Your task to perform on an android device: set an alarm Image 0: 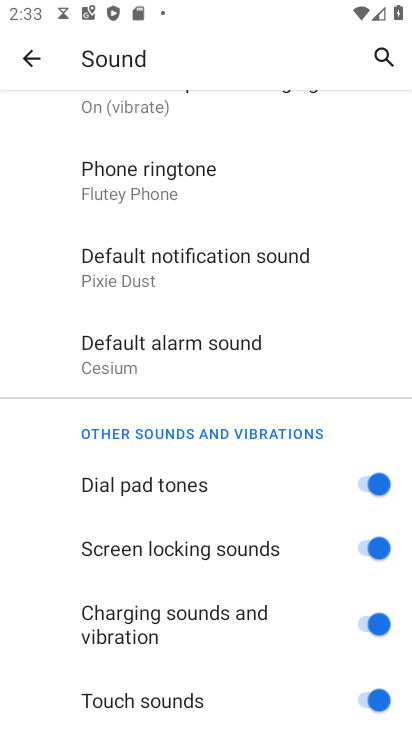
Step 0: press back button
Your task to perform on an android device: set an alarm Image 1: 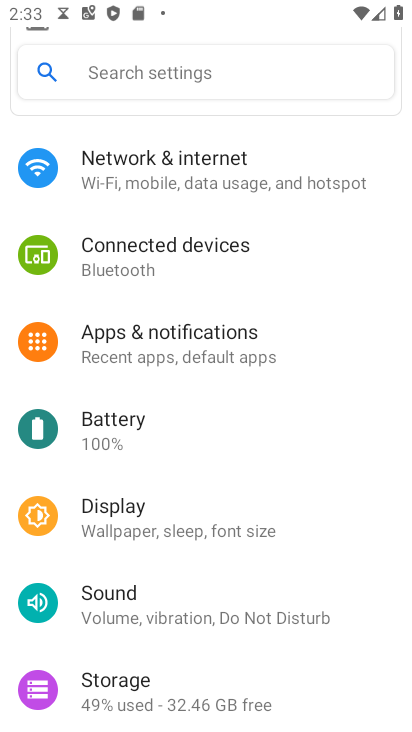
Step 1: press back button
Your task to perform on an android device: set an alarm Image 2: 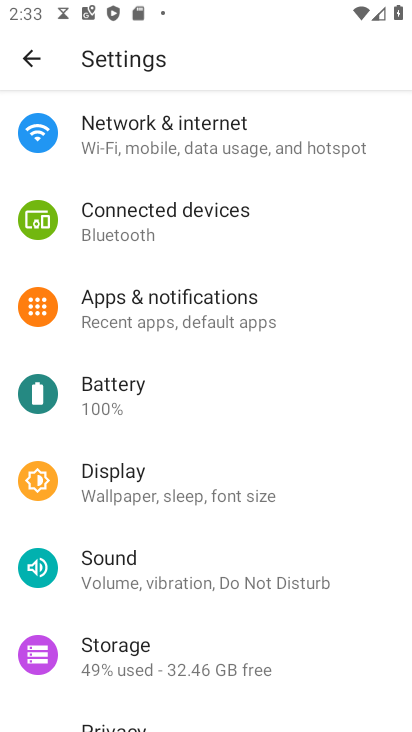
Step 2: press home button
Your task to perform on an android device: set an alarm Image 3: 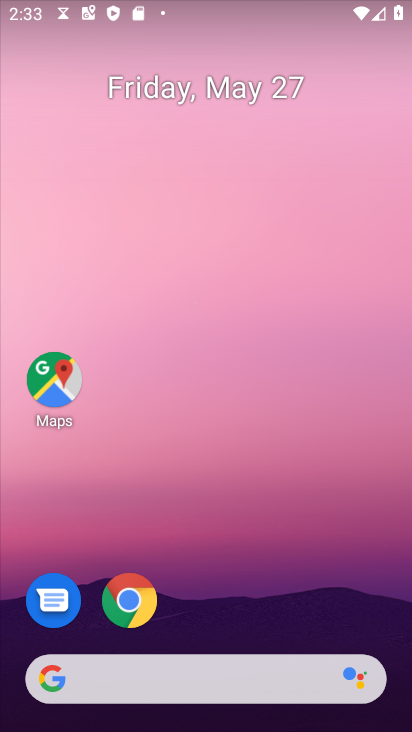
Step 3: drag from (280, 588) to (194, 32)
Your task to perform on an android device: set an alarm Image 4: 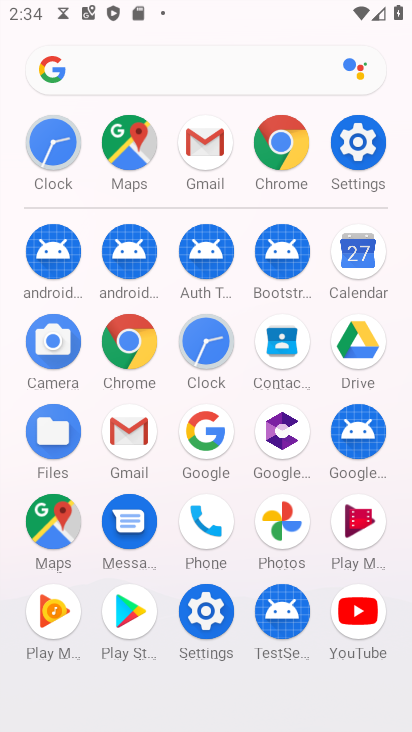
Step 4: click (202, 334)
Your task to perform on an android device: set an alarm Image 5: 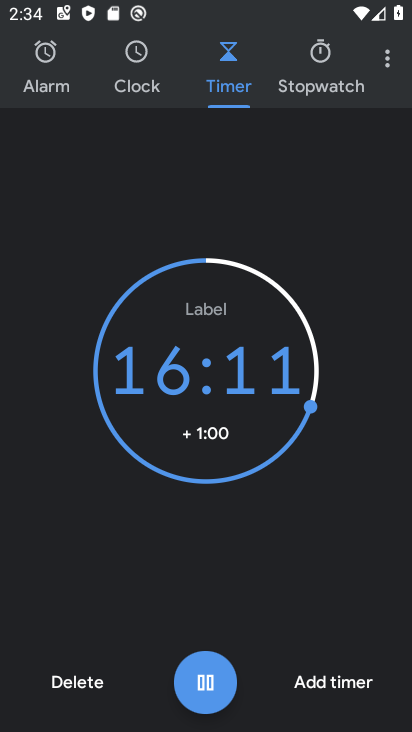
Step 5: click (133, 78)
Your task to perform on an android device: set an alarm Image 6: 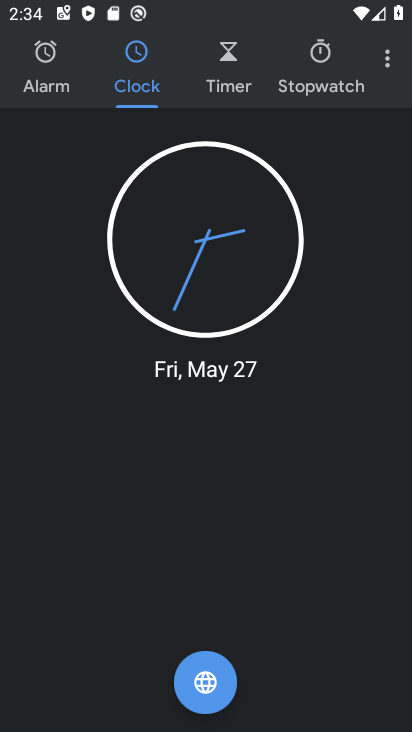
Step 6: click (50, 71)
Your task to perform on an android device: set an alarm Image 7: 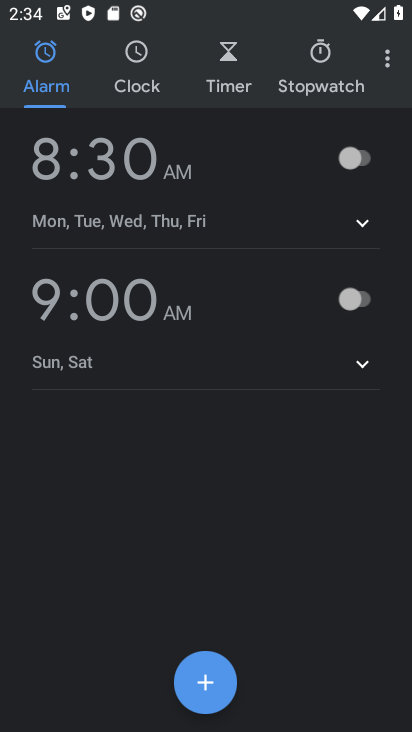
Step 7: click (209, 672)
Your task to perform on an android device: set an alarm Image 8: 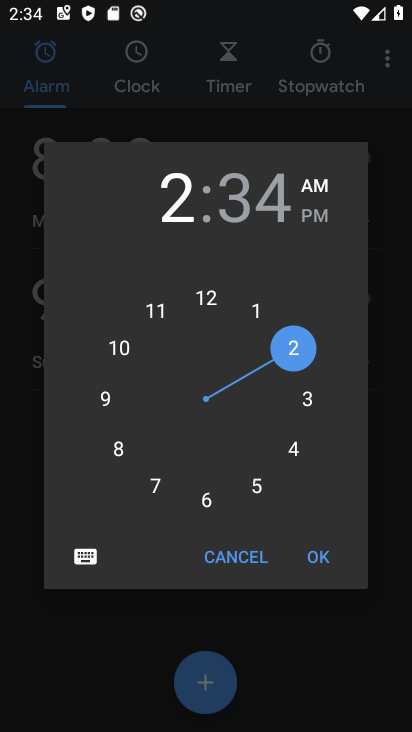
Step 8: click (312, 553)
Your task to perform on an android device: set an alarm Image 9: 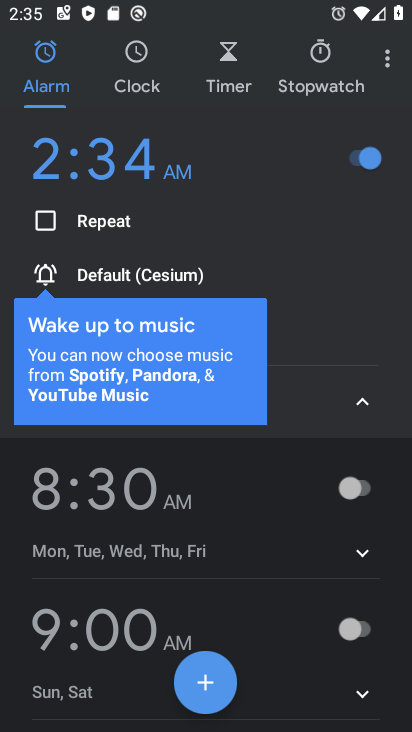
Step 9: task complete